Your task to perform on an android device: turn pop-ups off in chrome Image 0: 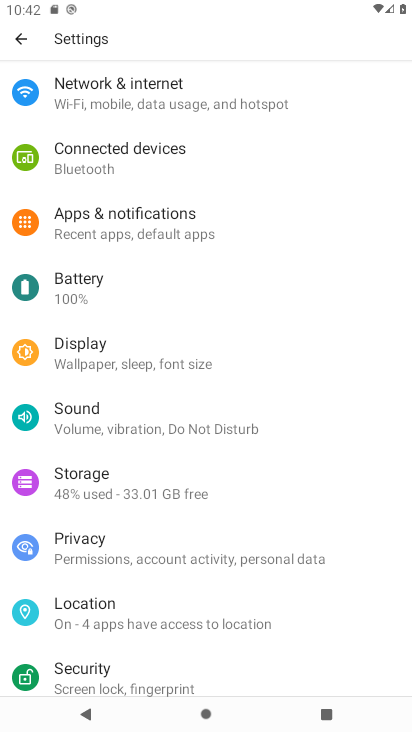
Step 0: press back button
Your task to perform on an android device: turn pop-ups off in chrome Image 1: 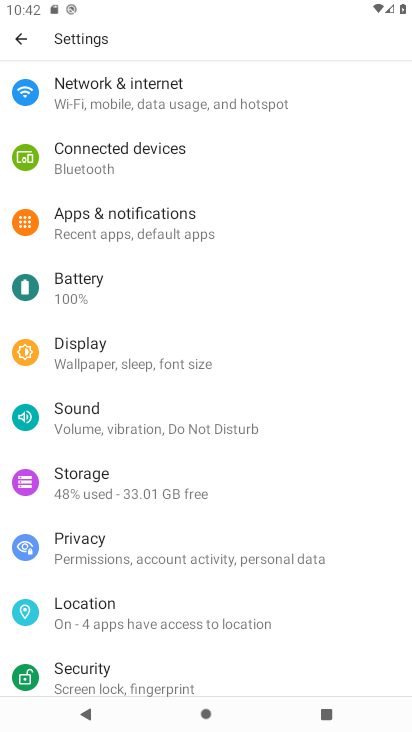
Step 1: press back button
Your task to perform on an android device: turn pop-ups off in chrome Image 2: 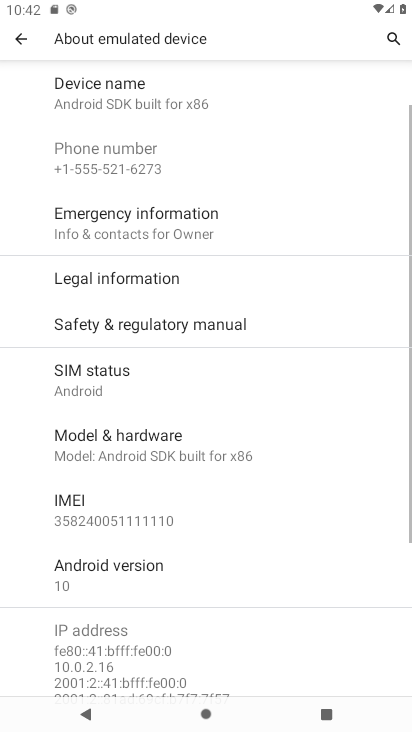
Step 2: click (18, 31)
Your task to perform on an android device: turn pop-ups off in chrome Image 3: 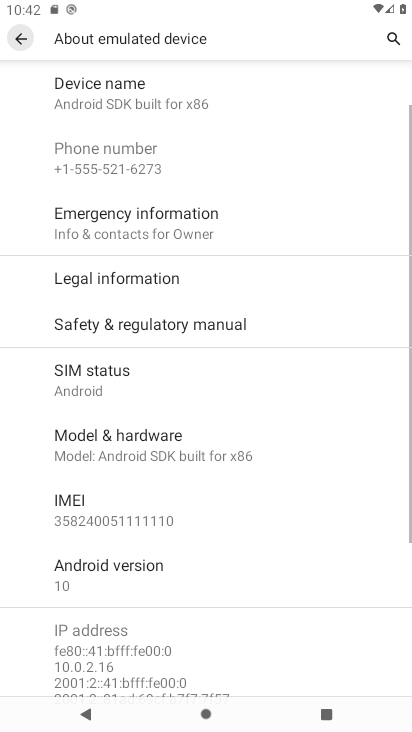
Step 3: click (16, 31)
Your task to perform on an android device: turn pop-ups off in chrome Image 4: 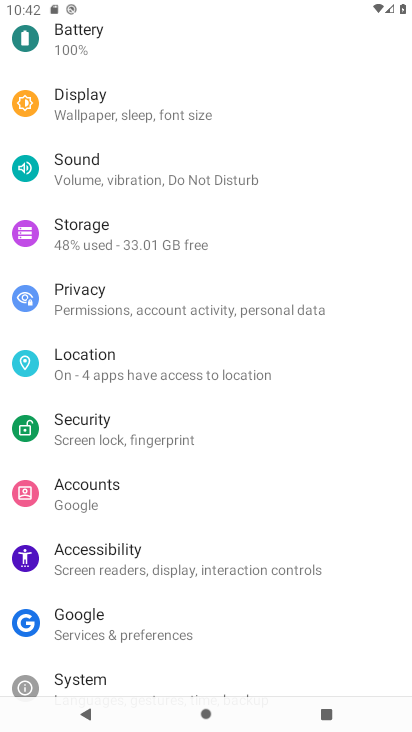
Step 4: press home button
Your task to perform on an android device: turn pop-ups off in chrome Image 5: 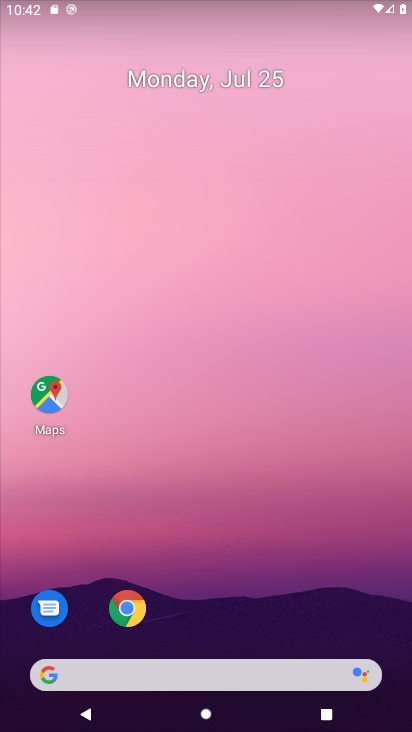
Step 5: drag from (271, 668) to (227, 229)
Your task to perform on an android device: turn pop-ups off in chrome Image 6: 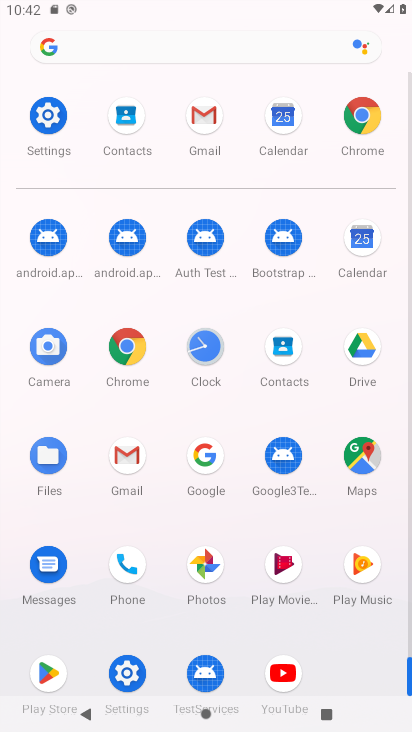
Step 6: click (357, 115)
Your task to perform on an android device: turn pop-ups off in chrome Image 7: 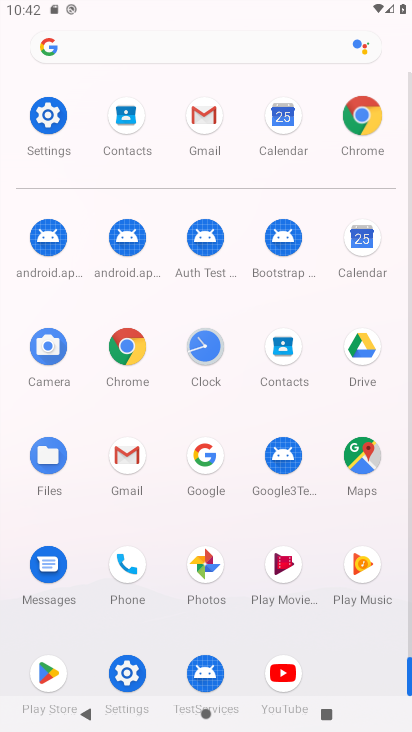
Step 7: click (358, 113)
Your task to perform on an android device: turn pop-ups off in chrome Image 8: 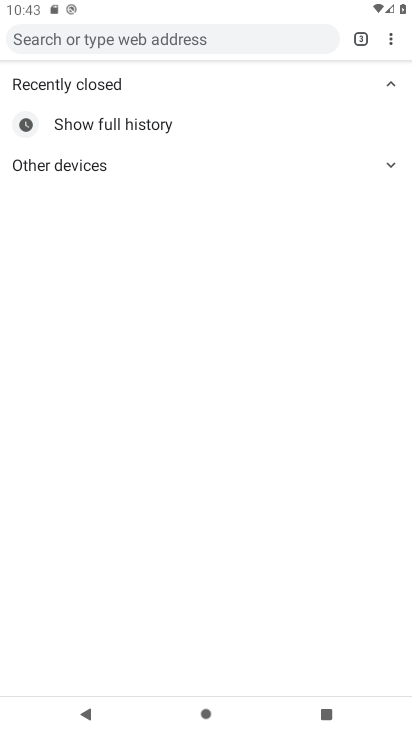
Step 8: click (390, 37)
Your task to perform on an android device: turn pop-ups off in chrome Image 9: 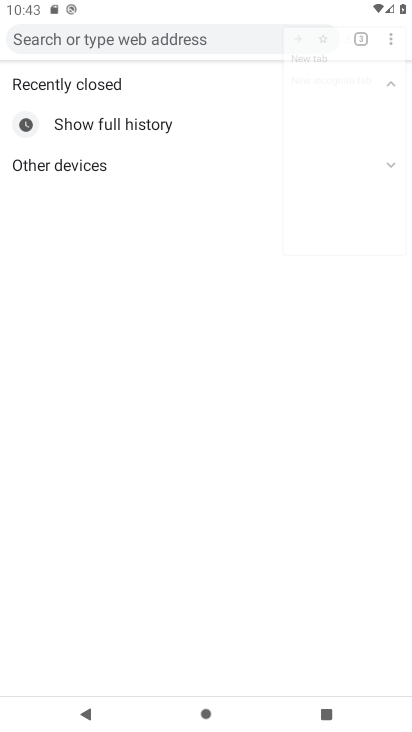
Step 9: click (390, 35)
Your task to perform on an android device: turn pop-ups off in chrome Image 10: 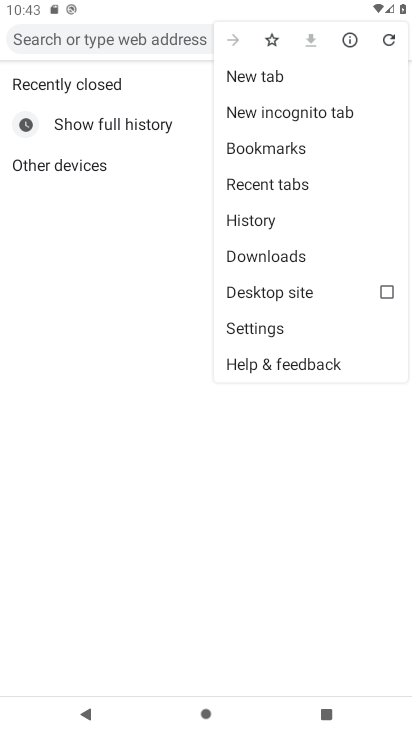
Step 10: click (251, 326)
Your task to perform on an android device: turn pop-ups off in chrome Image 11: 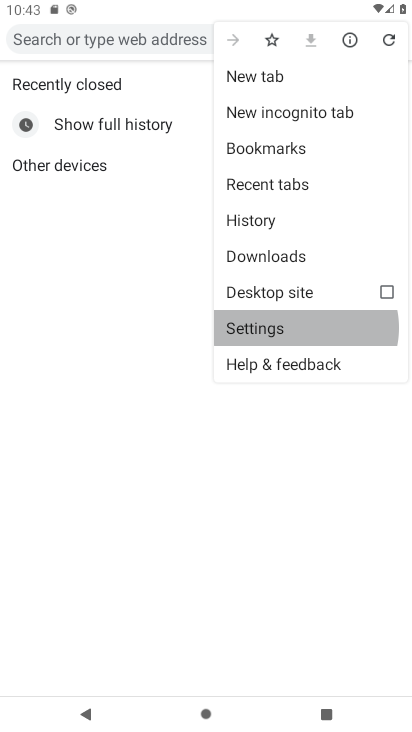
Step 11: click (249, 325)
Your task to perform on an android device: turn pop-ups off in chrome Image 12: 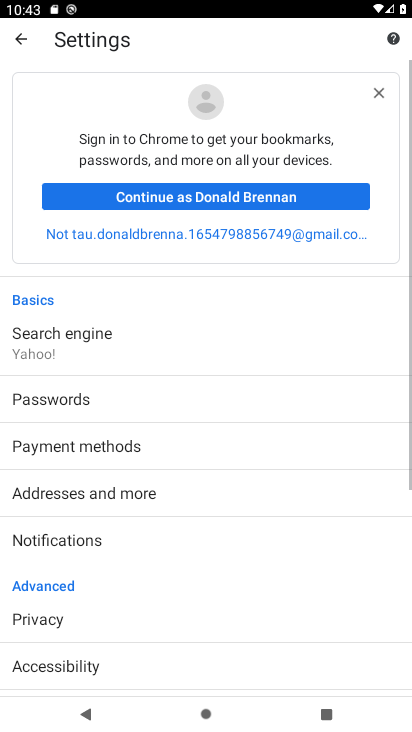
Step 12: drag from (100, 546) to (76, 188)
Your task to perform on an android device: turn pop-ups off in chrome Image 13: 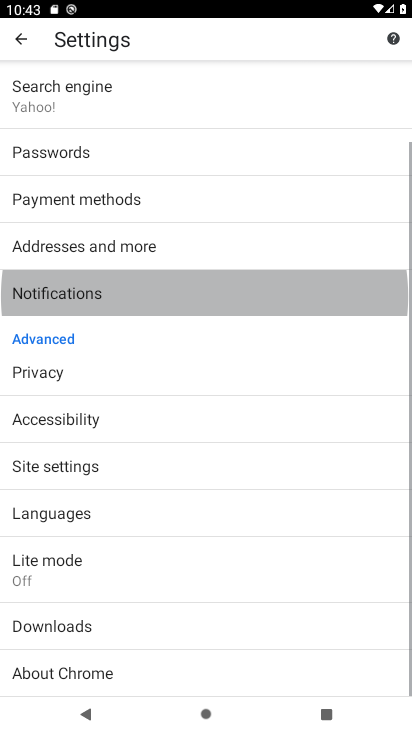
Step 13: drag from (114, 497) to (97, 238)
Your task to perform on an android device: turn pop-ups off in chrome Image 14: 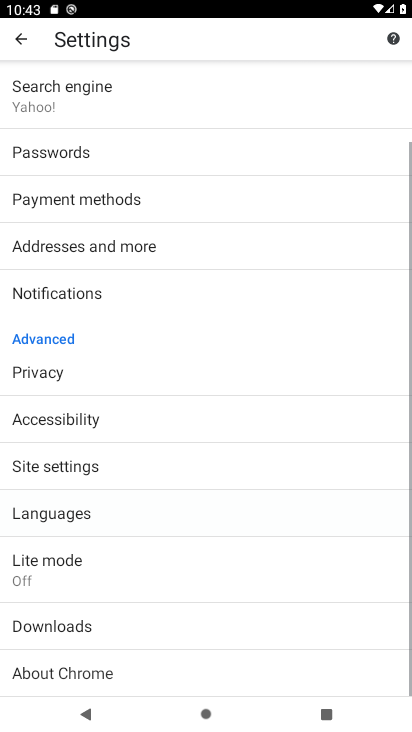
Step 14: drag from (190, 469) to (165, 184)
Your task to perform on an android device: turn pop-ups off in chrome Image 15: 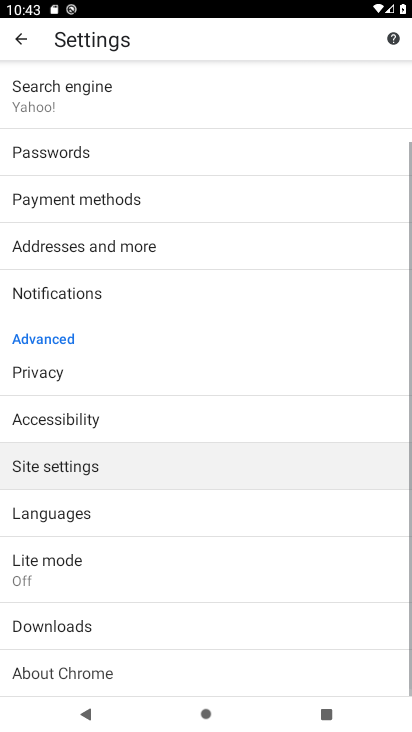
Step 15: drag from (114, 610) to (85, 295)
Your task to perform on an android device: turn pop-ups off in chrome Image 16: 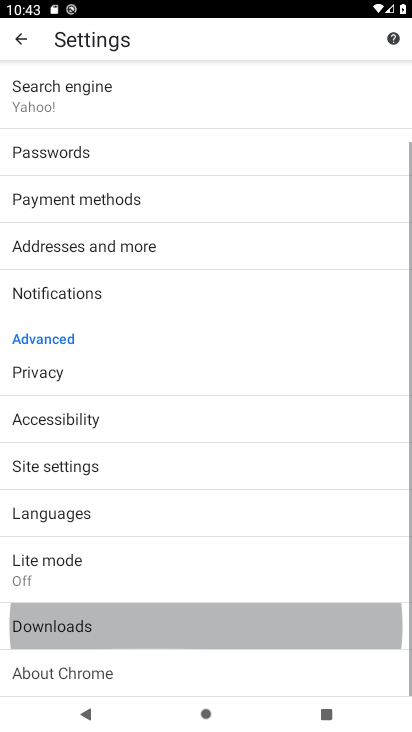
Step 16: drag from (111, 585) to (109, 236)
Your task to perform on an android device: turn pop-ups off in chrome Image 17: 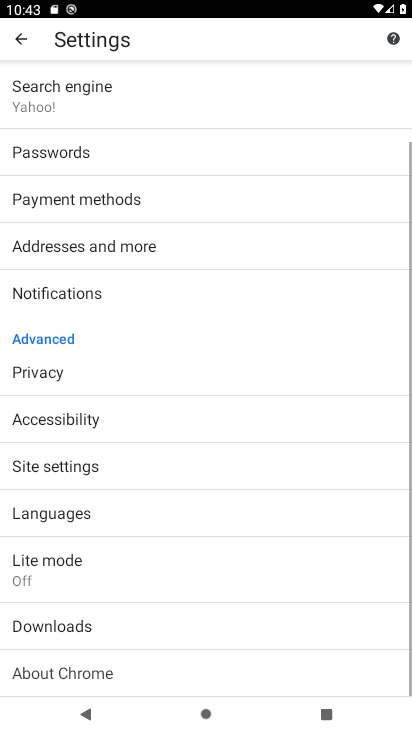
Step 17: drag from (81, 587) to (92, 304)
Your task to perform on an android device: turn pop-ups off in chrome Image 18: 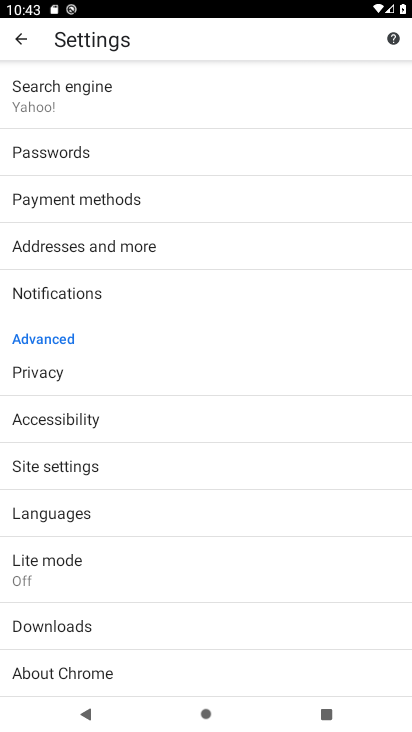
Step 18: click (46, 470)
Your task to perform on an android device: turn pop-ups off in chrome Image 19: 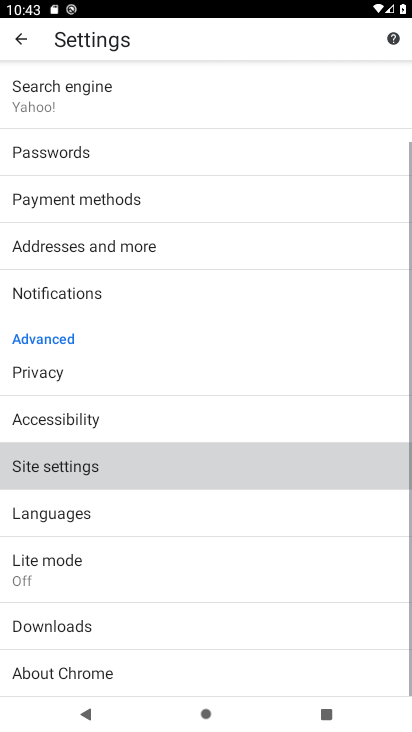
Step 19: click (46, 469)
Your task to perform on an android device: turn pop-ups off in chrome Image 20: 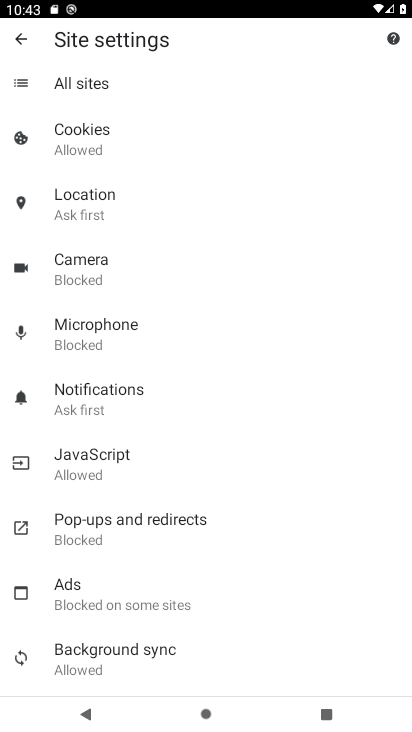
Step 20: click (80, 529)
Your task to perform on an android device: turn pop-ups off in chrome Image 21: 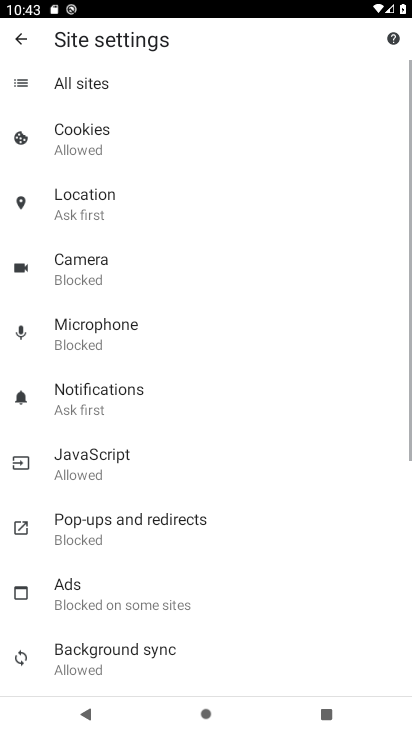
Step 21: click (80, 527)
Your task to perform on an android device: turn pop-ups off in chrome Image 22: 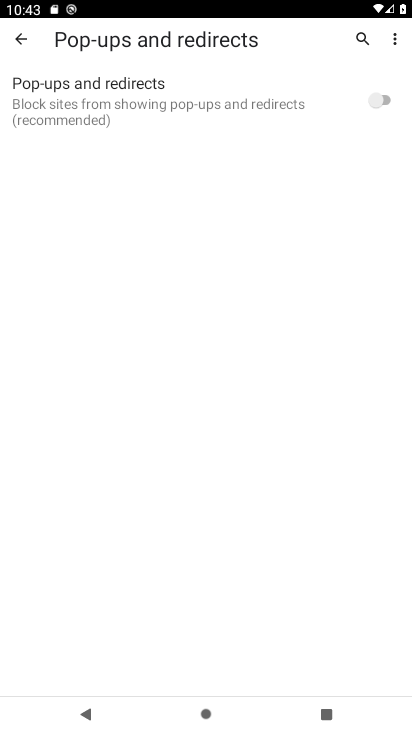
Step 22: task complete